Your task to perform on an android device: check storage Image 0: 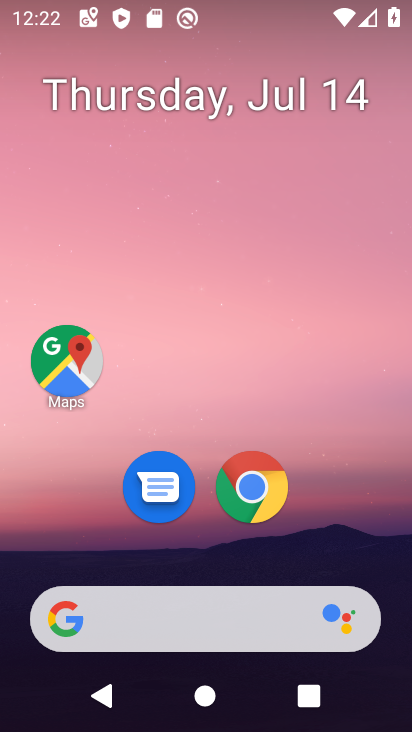
Step 0: drag from (200, 590) to (232, 203)
Your task to perform on an android device: check storage Image 1: 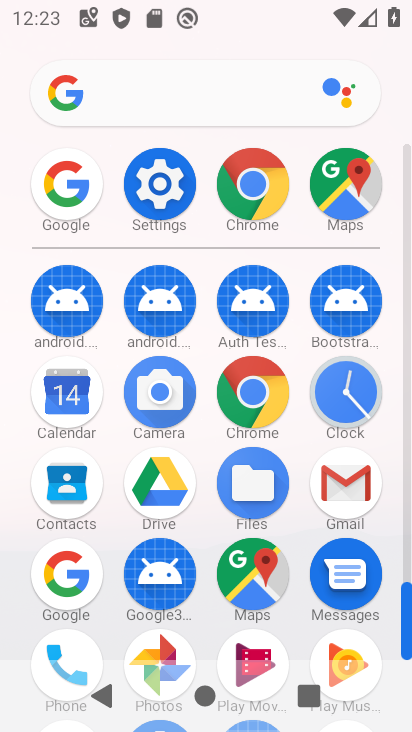
Step 1: click (166, 191)
Your task to perform on an android device: check storage Image 2: 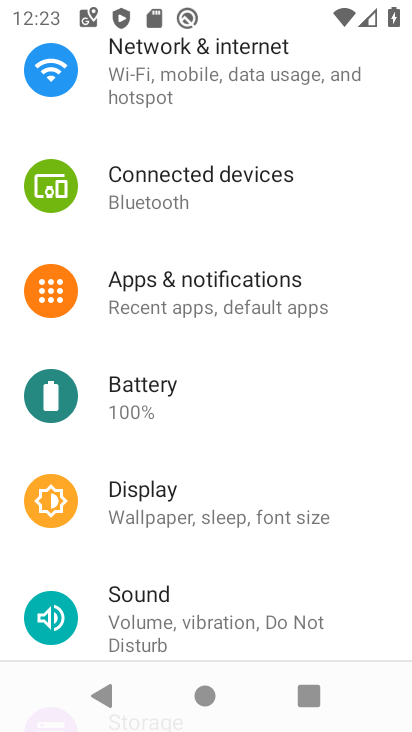
Step 2: drag from (174, 533) to (215, 275)
Your task to perform on an android device: check storage Image 3: 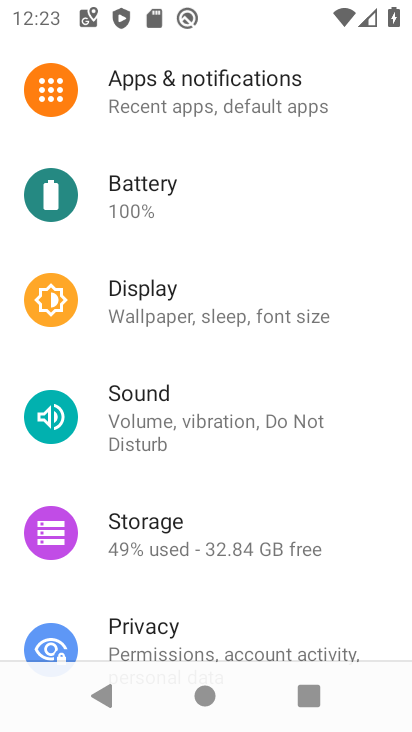
Step 3: click (245, 552)
Your task to perform on an android device: check storage Image 4: 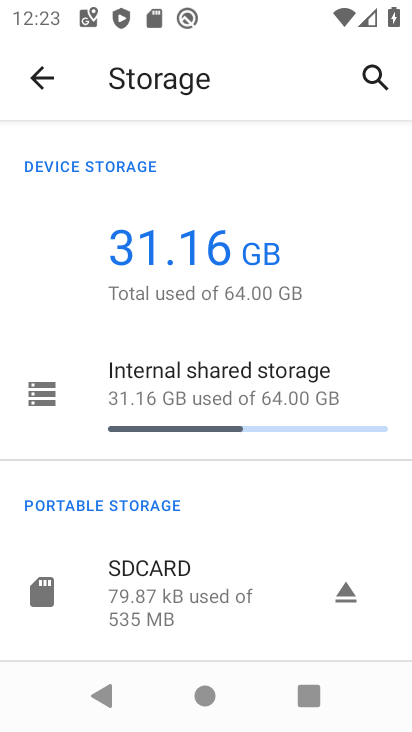
Step 4: click (259, 407)
Your task to perform on an android device: check storage Image 5: 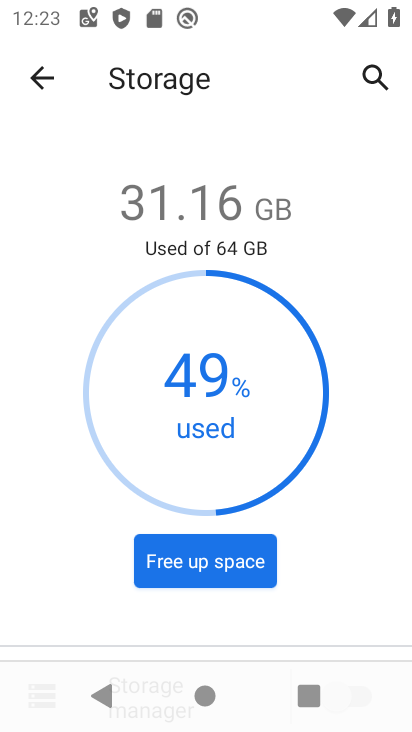
Step 5: task complete